Your task to perform on an android device: open app "HBO Max: Stream TV & Movies" (install if not already installed) Image 0: 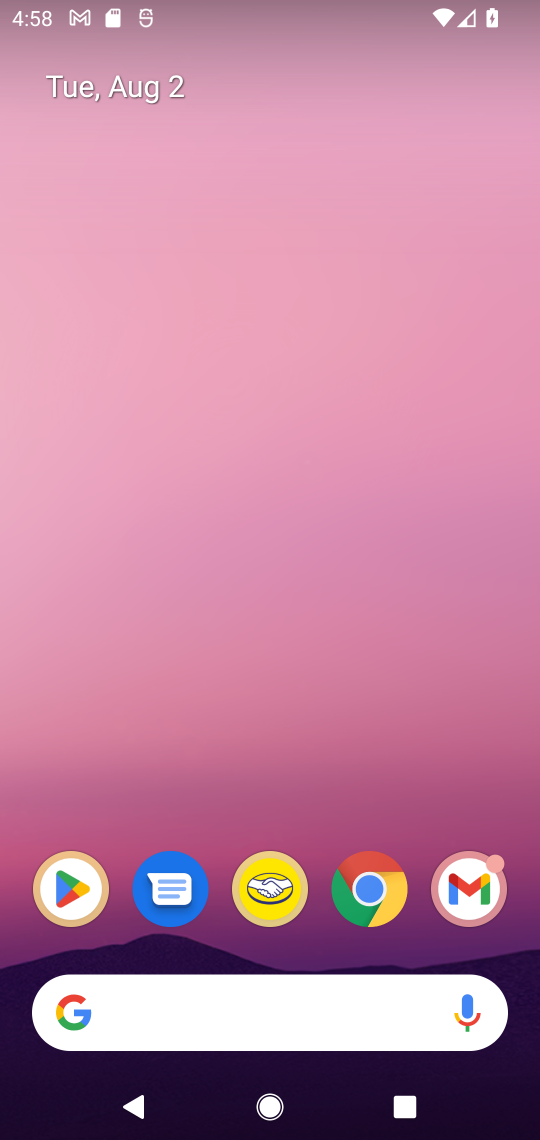
Step 0: press home button
Your task to perform on an android device: open app "HBO Max: Stream TV & Movies" (install if not already installed) Image 1: 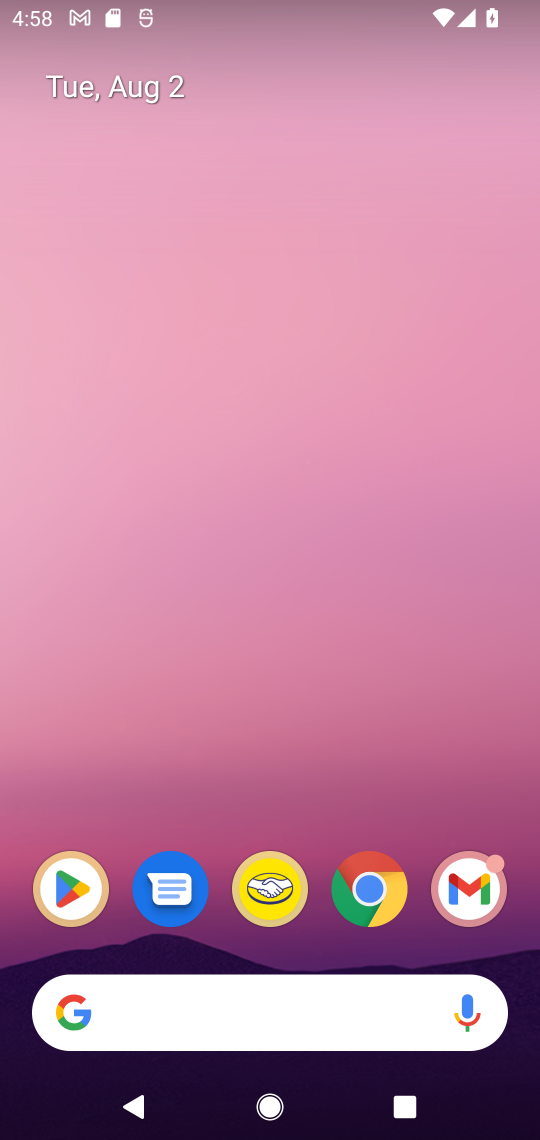
Step 1: drag from (403, 728) to (389, 101)
Your task to perform on an android device: open app "HBO Max: Stream TV & Movies" (install if not already installed) Image 2: 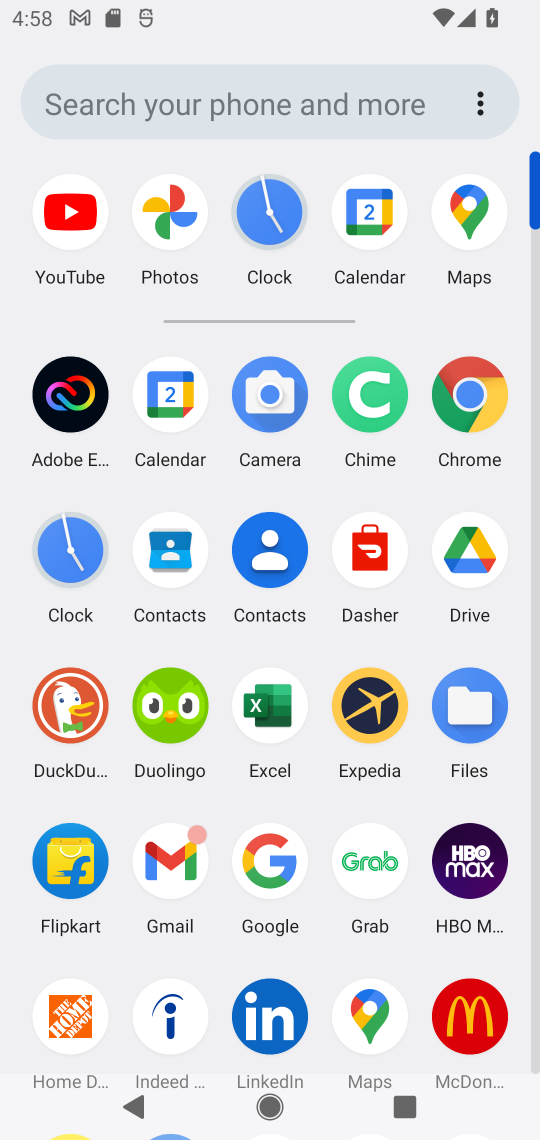
Step 2: drag from (521, 916) to (526, 453)
Your task to perform on an android device: open app "HBO Max: Stream TV & Movies" (install if not already installed) Image 3: 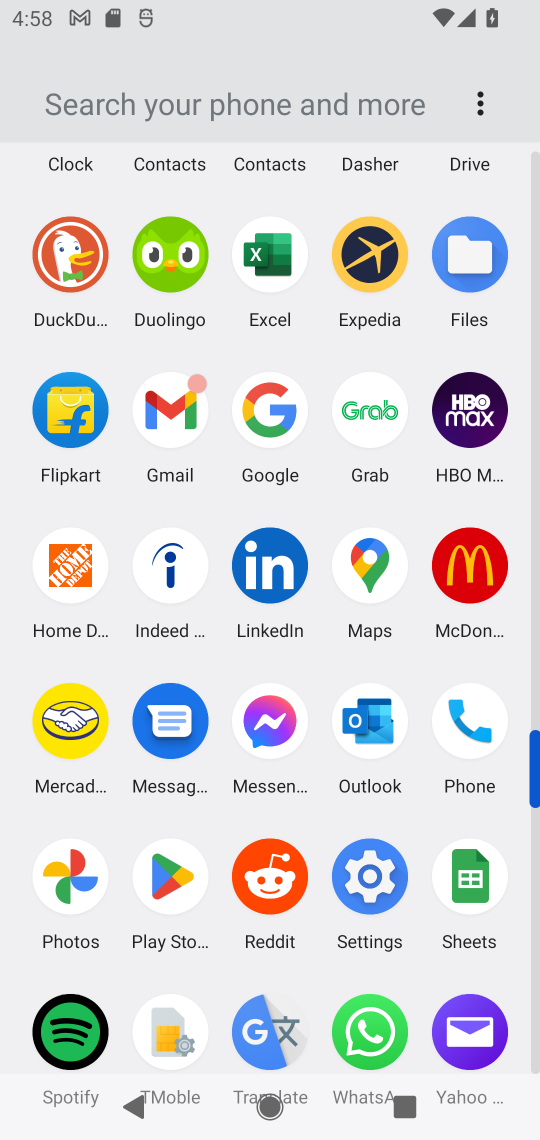
Step 3: click (173, 877)
Your task to perform on an android device: open app "HBO Max: Stream TV & Movies" (install if not already installed) Image 4: 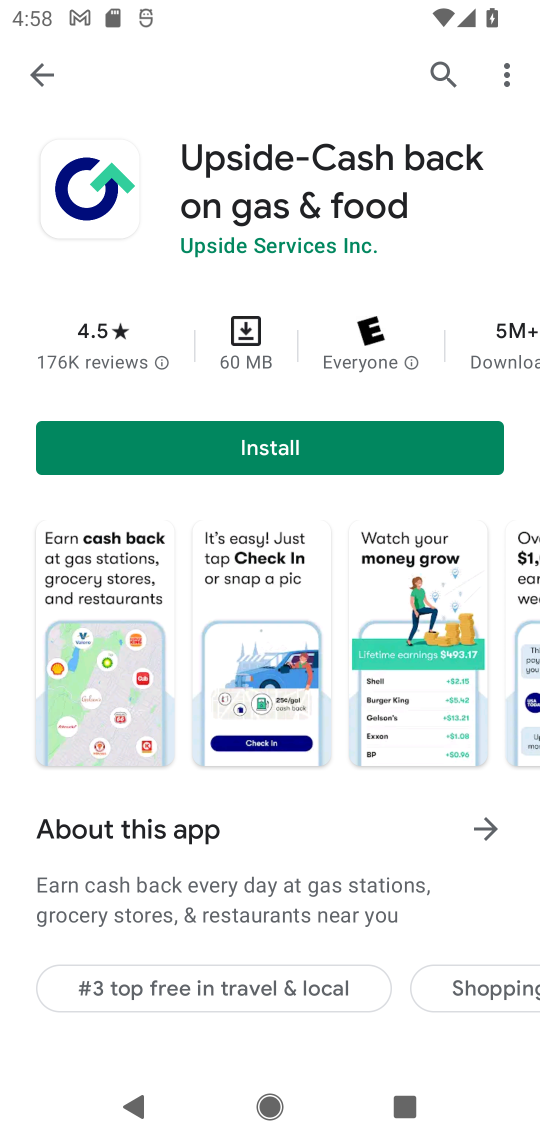
Step 4: click (439, 67)
Your task to perform on an android device: open app "HBO Max: Stream TV & Movies" (install if not already installed) Image 5: 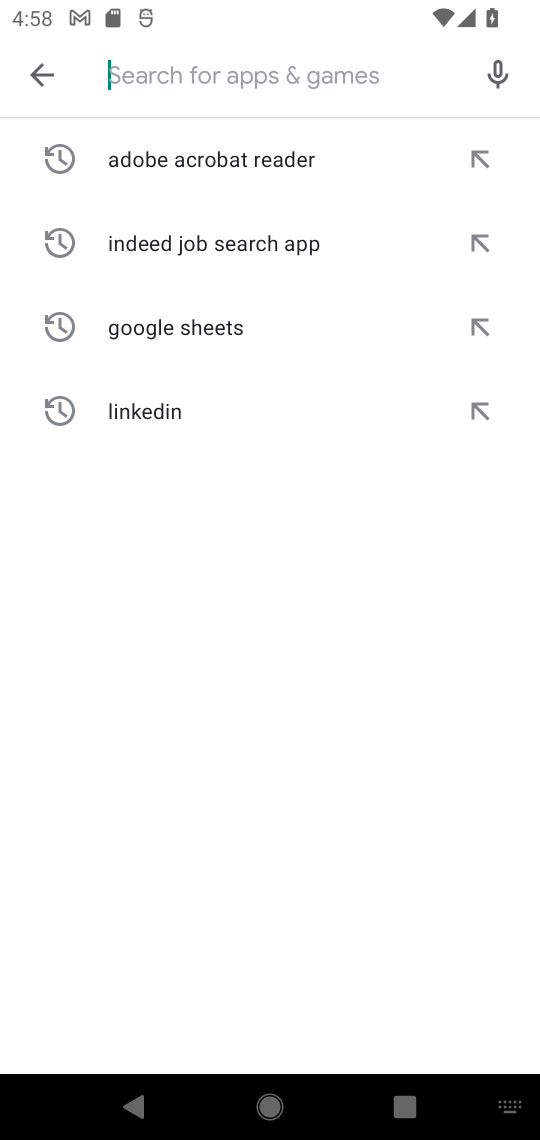
Step 5: click (386, 78)
Your task to perform on an android device: open app "HBO Max: Stream TV & Movies" (install if not already installed) Image 6: 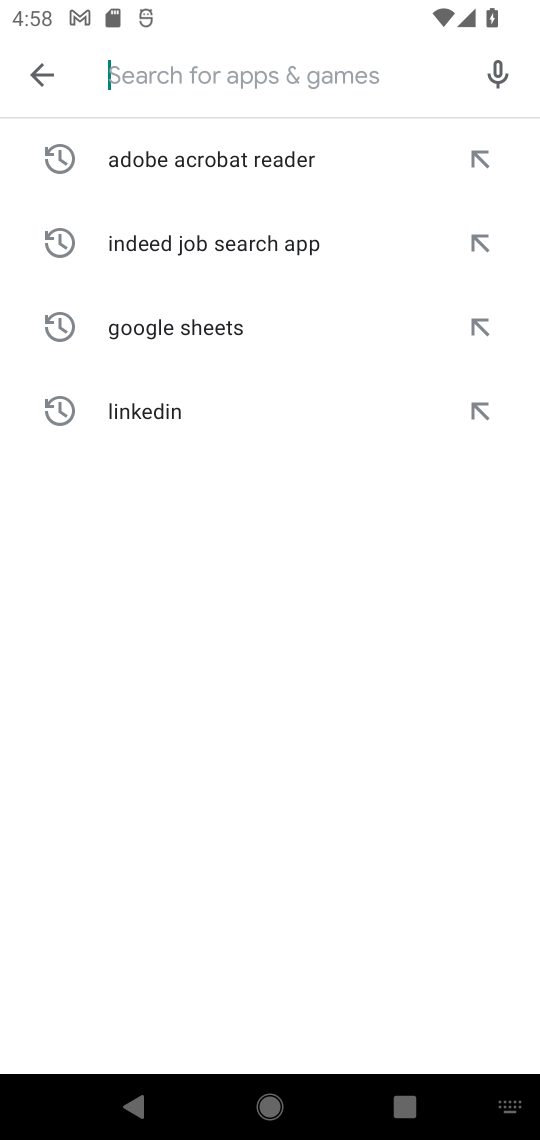
Step 6: type "HBO Max: Stream TV & Movies"
Your task to perform on an android device: open app "HBO Max: Stream TV & Movies" (install if not already installed) Image 7: 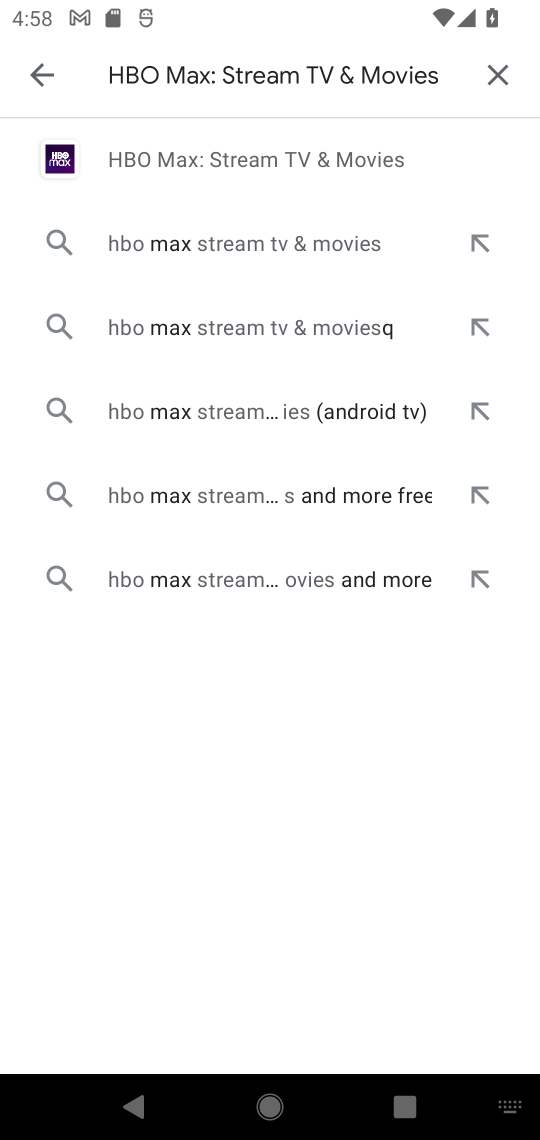
Step 7: click (235, 159)
Your task to perform on an android device: open app "HBO Max: Stream TV & Movies" (install if not already installed) Image 8: 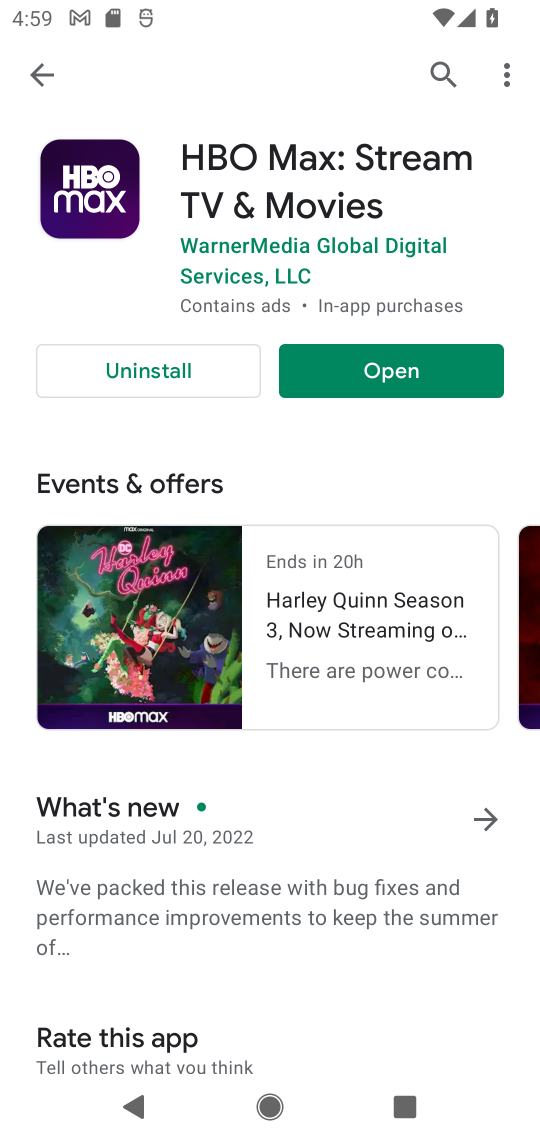
Step 8: click (415, 382)
Your task to perform on an android device: open app "HBO Max: Stream TV & Movies" (install if not already installed) Image 9: 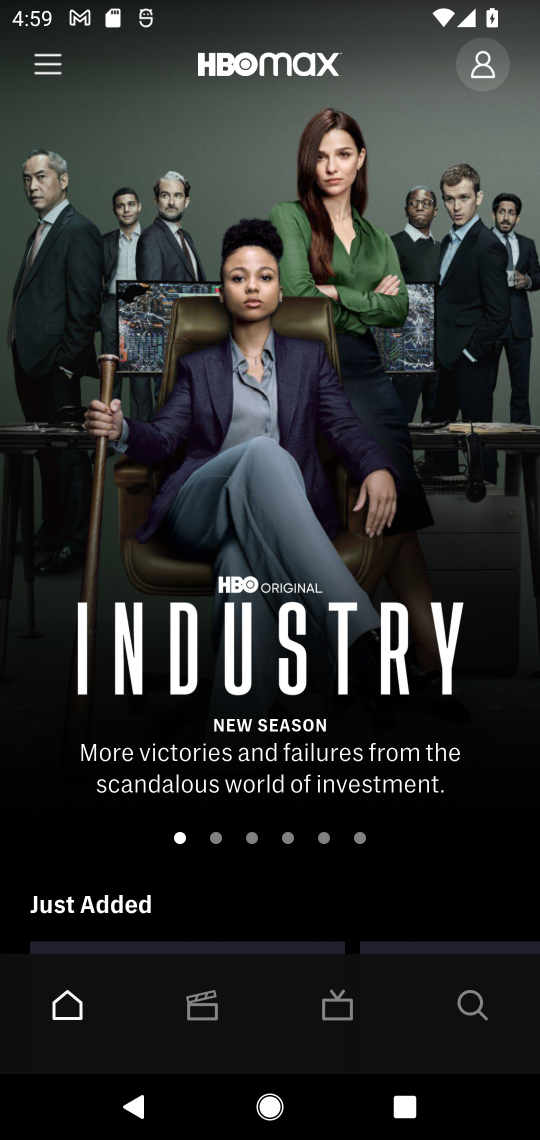
Step 9: task complete